Your task to perform on an android device: check google app version Image 0: 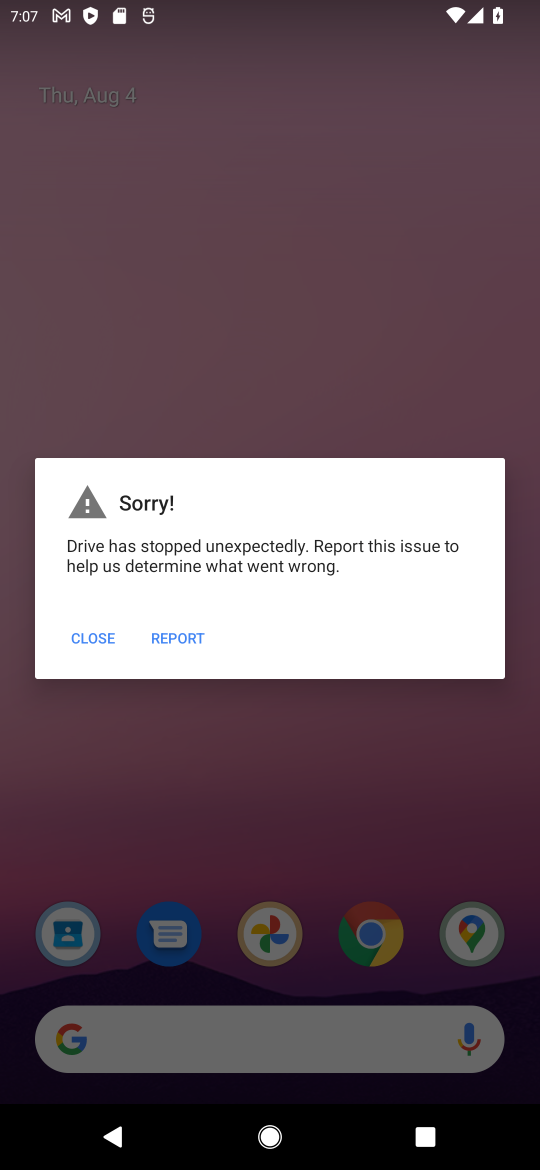
Step 0: press back button
Your task to perform on an android device: check google app version Image 1: 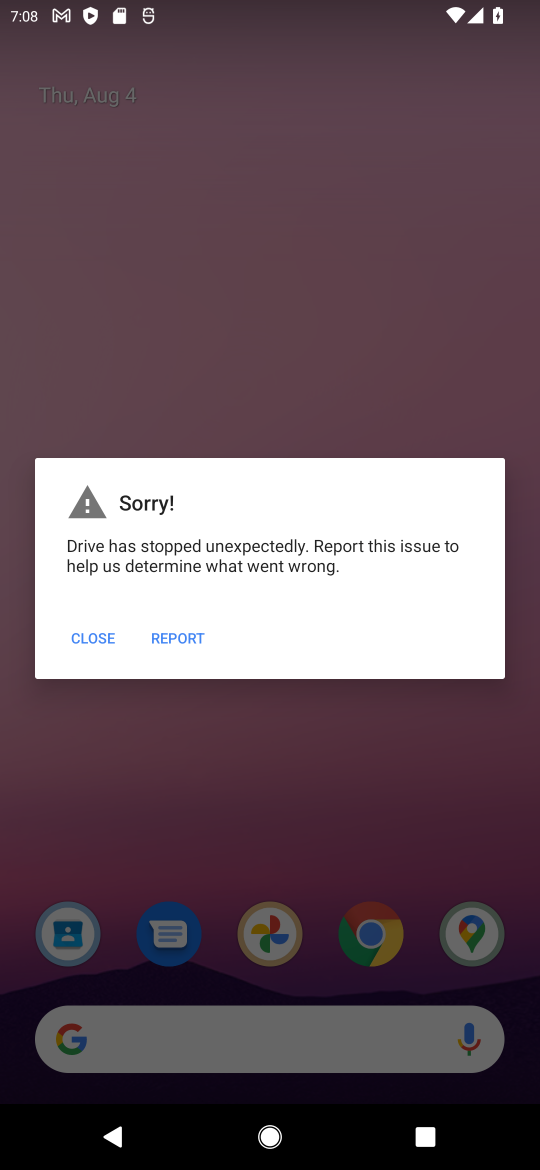
Step 1: press back button
Your task to perform on an android device: check google app version Image 2: 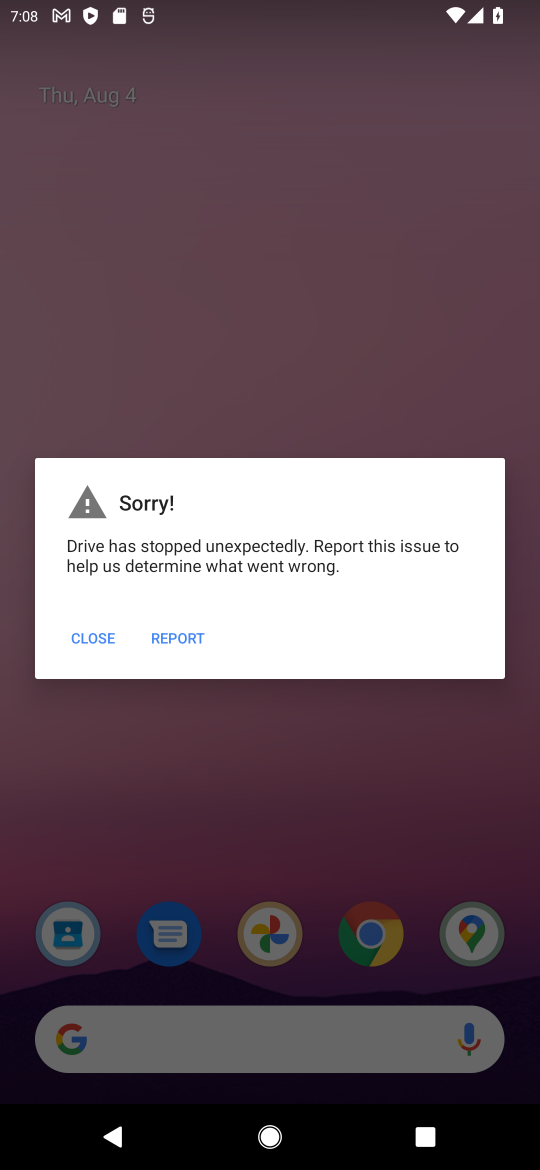
Step 2: press back button
Your task to perform on an android device: check google app version Image 3: 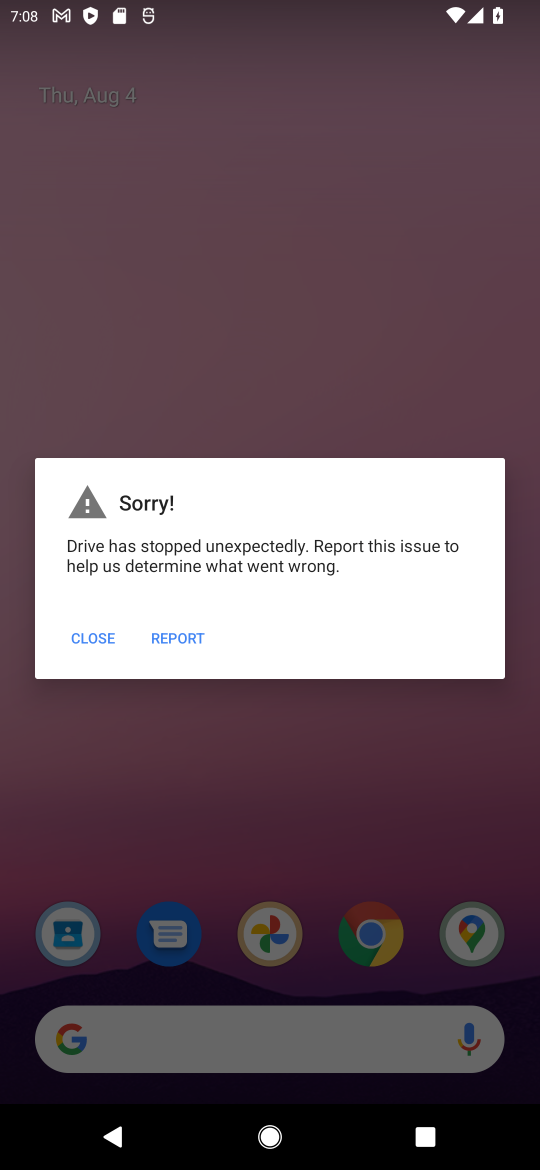
Step 3: press back button
Your task to perform on an android device: check google app version Image 4: 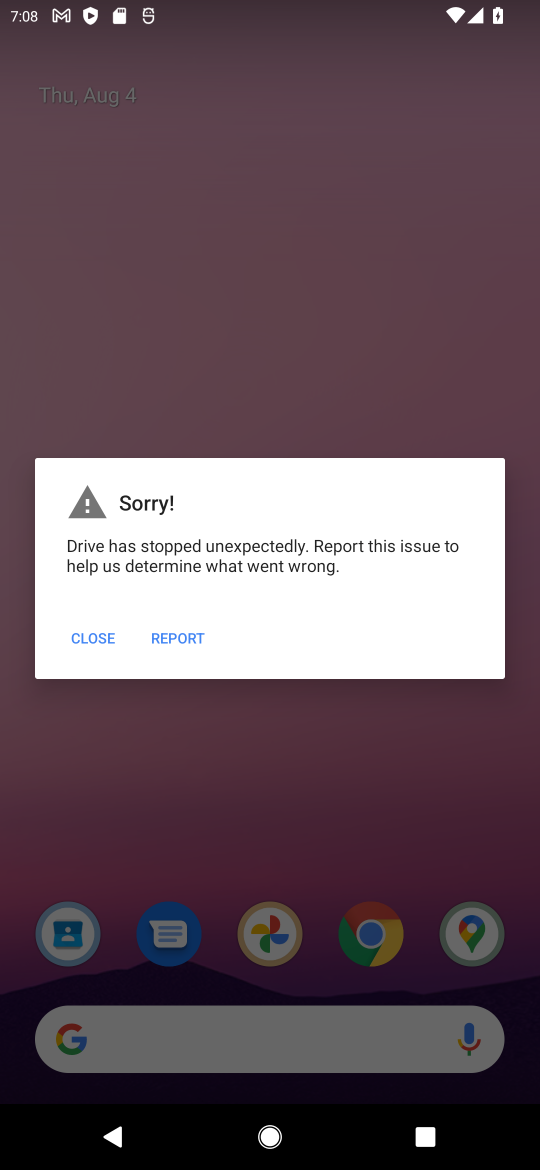
Step 4: click (86, 631)
Your task to perform on an android device: check google app version Image 5: 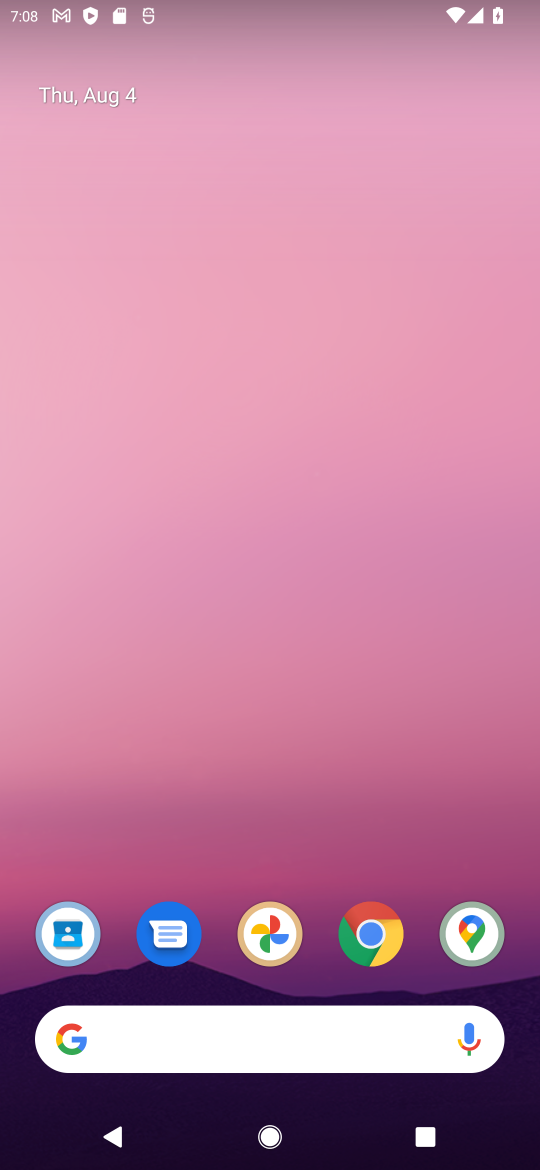
Step 5: drag from (288, 1022) to (240, 241)
Your task to perform on an android device: check google app version Image 6: 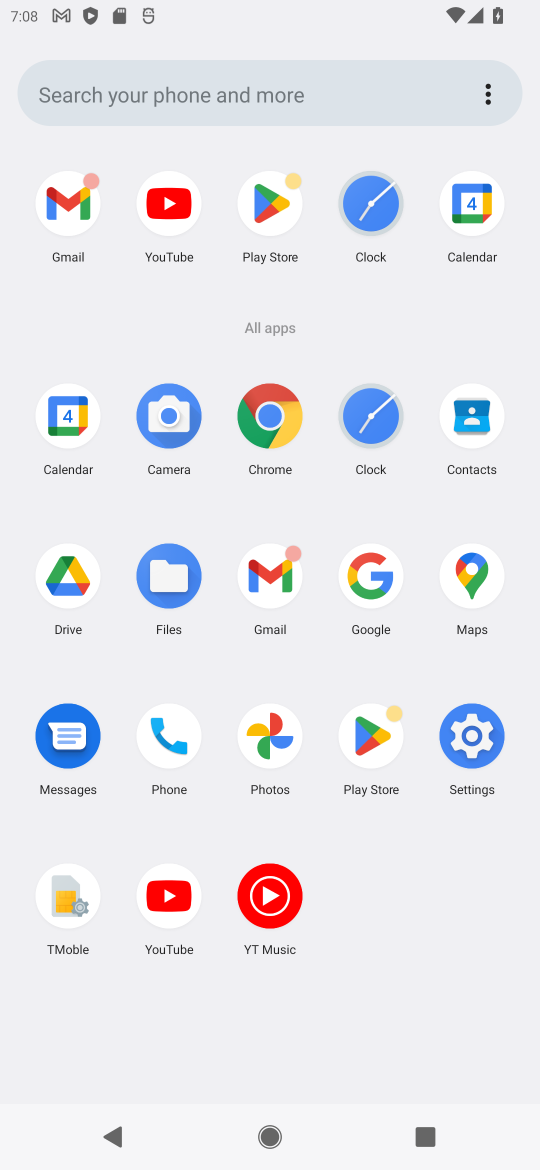
Step 6: click (364, 584)
Your task to perform on an android device: check google app version Image 7: 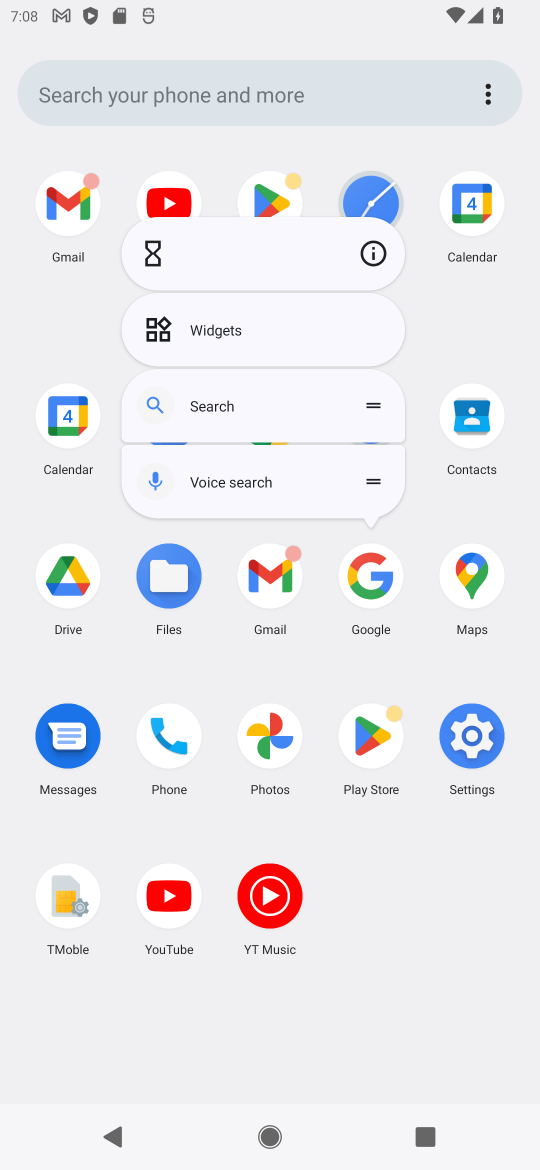
Step 7: click (369, 257)
Your task to perform on an android device: check google app version Image 8: 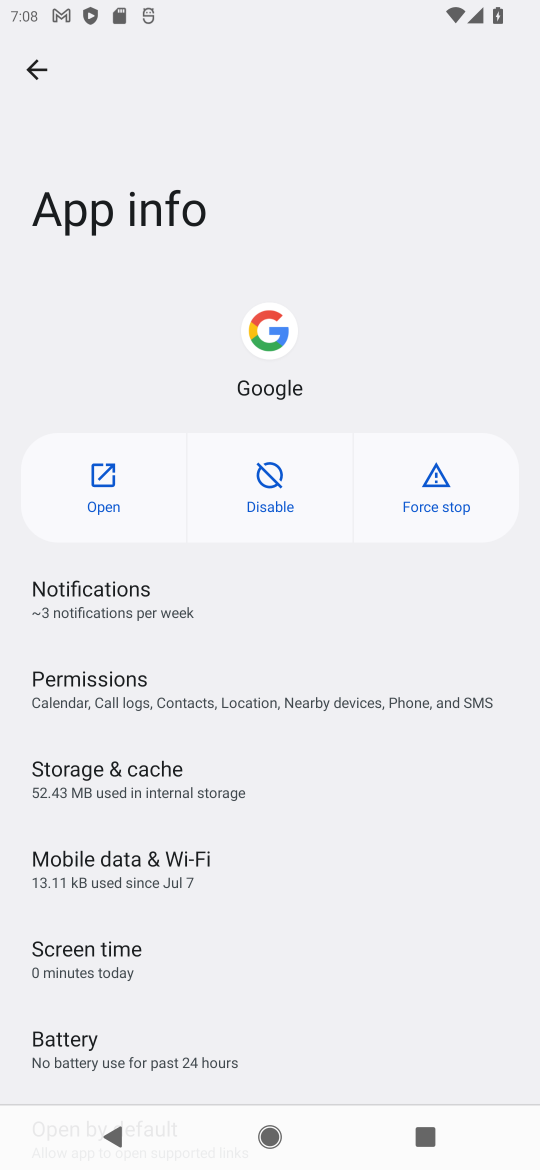
Step 8: task complete